Your task to perform on an android device: turn on wifi Image 0: 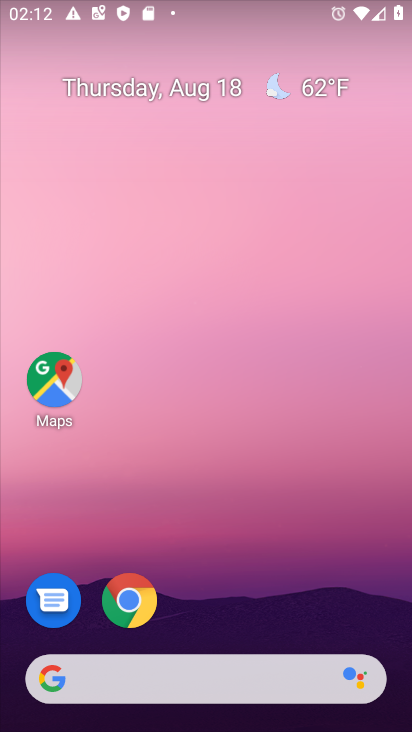
Step 0: press home button
Your task to perform on an android device: turn on wifi Image 1: 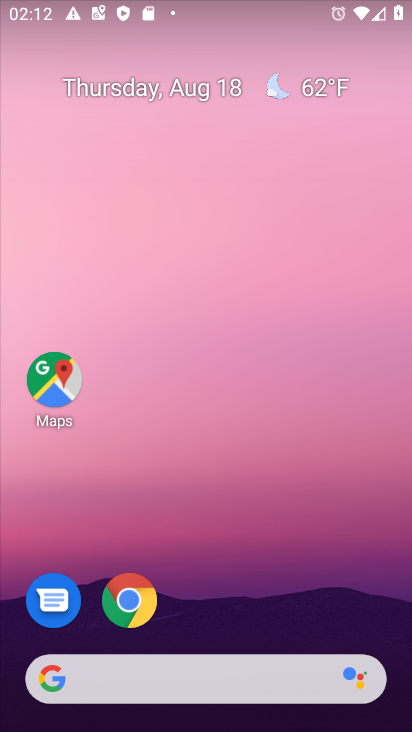
Step 1: drag from (303, 606) to (329, 128)
Your task to perform on an android device: turn on wifi Image 2: 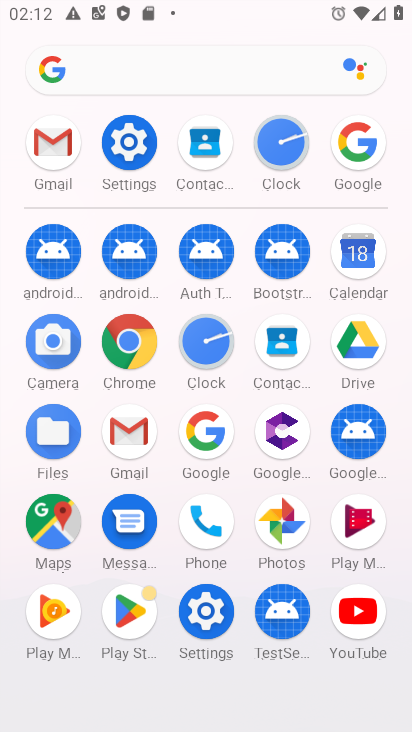
Step 2: click (127, 144)
Your task to perform on an android device: turn on wifi Image 3: 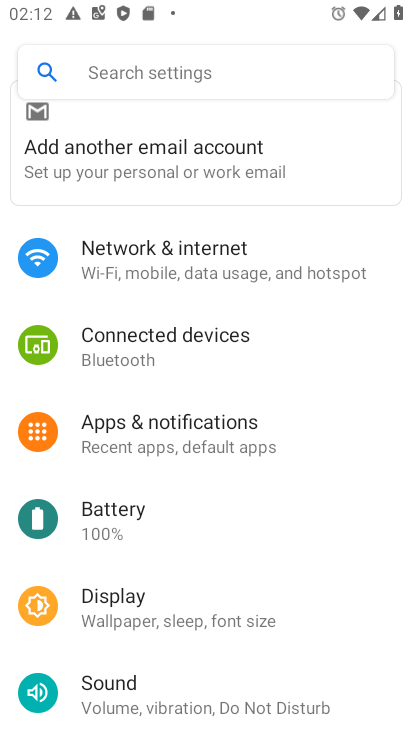
Step 3: click (202, 249)
Your task to perform on an android device: turn on wifi Image 4: 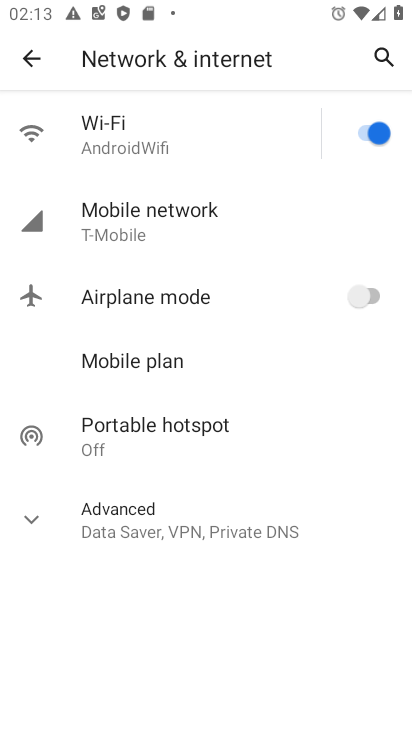
Step 4: task complete